Your task to perform on an android device: Open display settings Image 0: 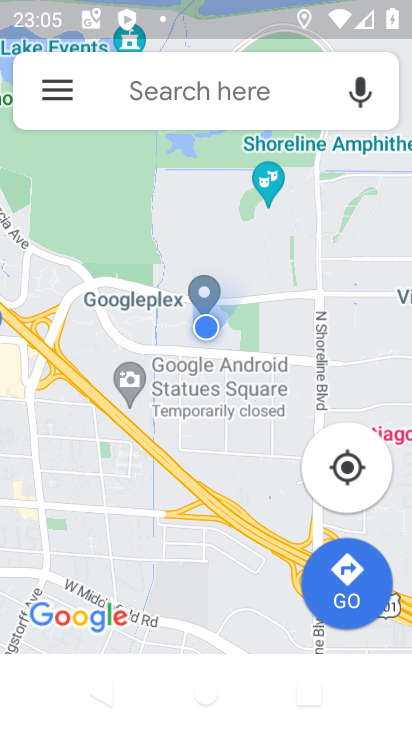
Step 0: press home button
Your task to perform on an android device: Open display settings Image 1: 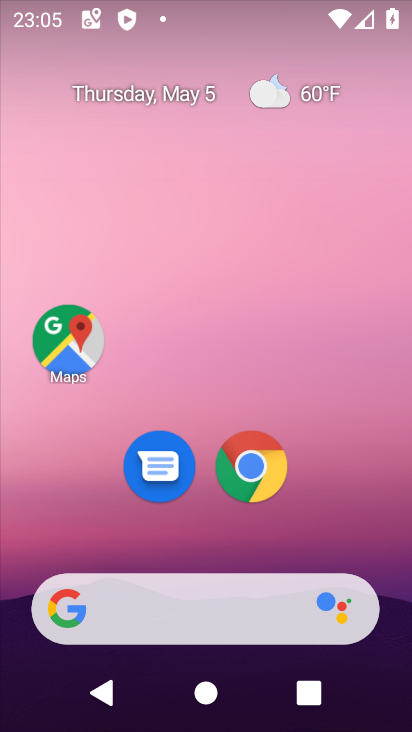
Step 1: drag from (267, 564) to (284, 166)
Your task to perform on an android device: Open display settings Image 2: 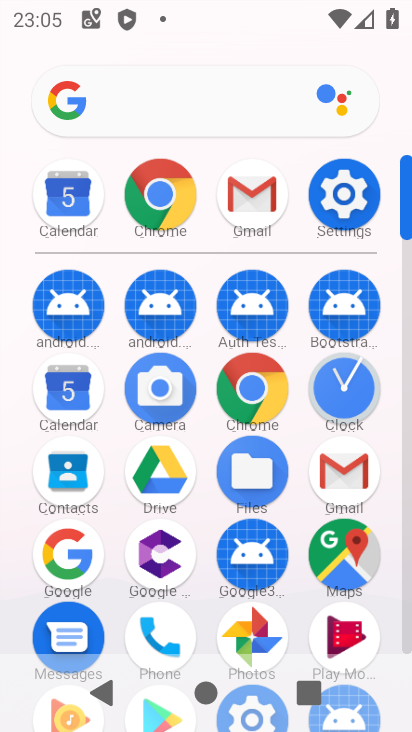
Step 2: click (326, 213)
Your task to perform on an android device: Open display settings Image 3: 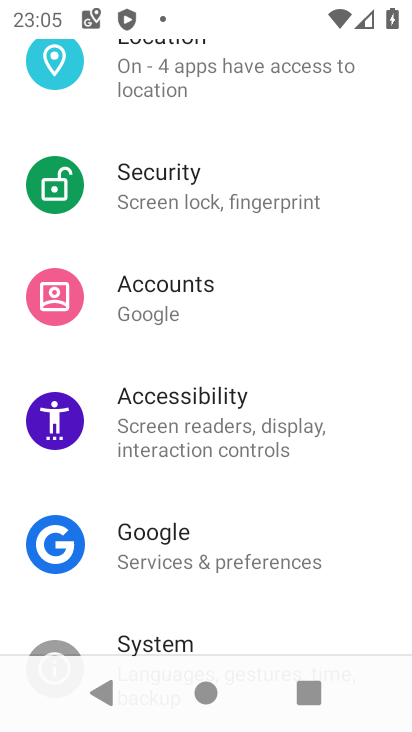
Step 3: drag from (215, 569) to (249, 234)
Your task to perform on an android device: Open display settings Image 4: 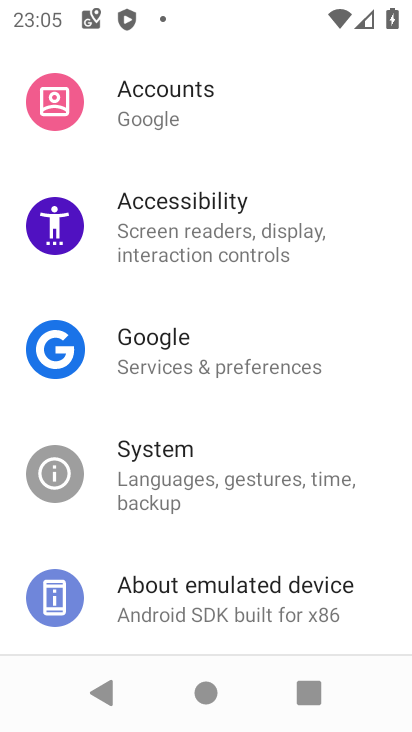
Step 4: drag from (254, 244) to (291, 560)
Your task to perform on an android device: Open display settings Image 5: 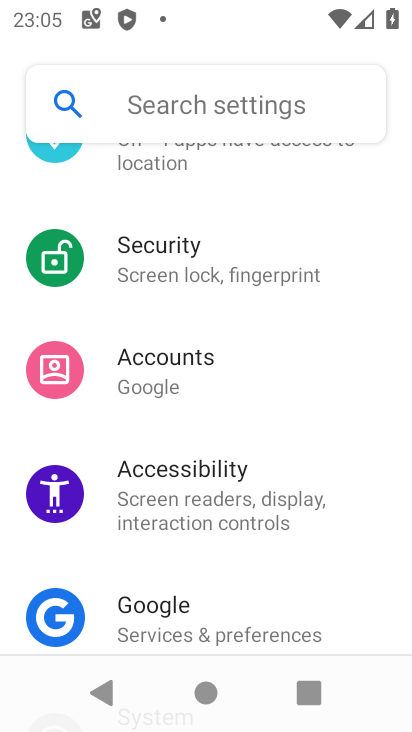
Step 5: drag from (199, 205) to (259, 467)
Your task to perform on an android device: Open display settings Image 6: 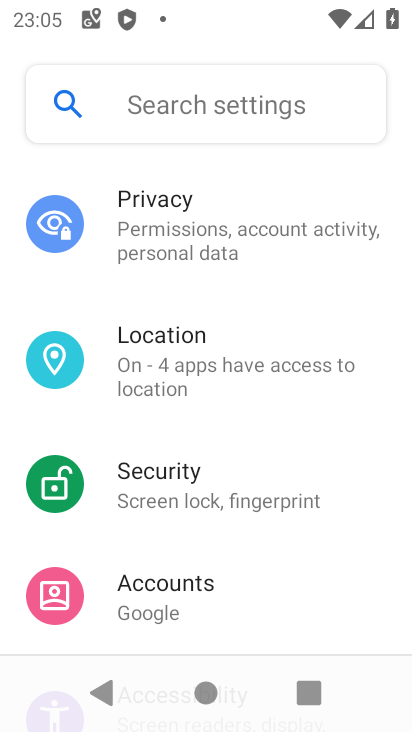
Step 6: drag from (218, 288) to (255, 505)
Your task to perform on an android device: Open display settings Image 7: 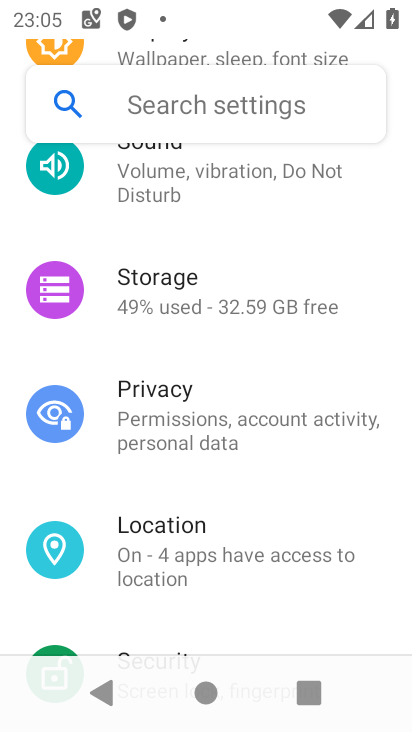
Step 7: drag from (281, 348) to (313, 460)
Your task to perform on an android device: Open display settings Image 8: 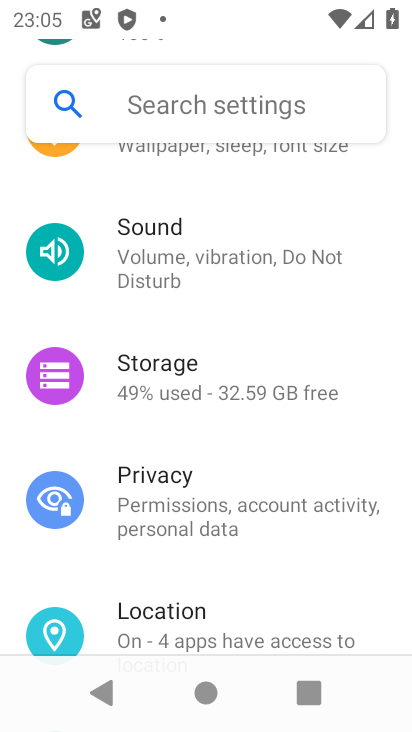
Step 8: drag from (282, 384) to (332, 567)
Your task to perform on an android device: Open display settings Image 9: 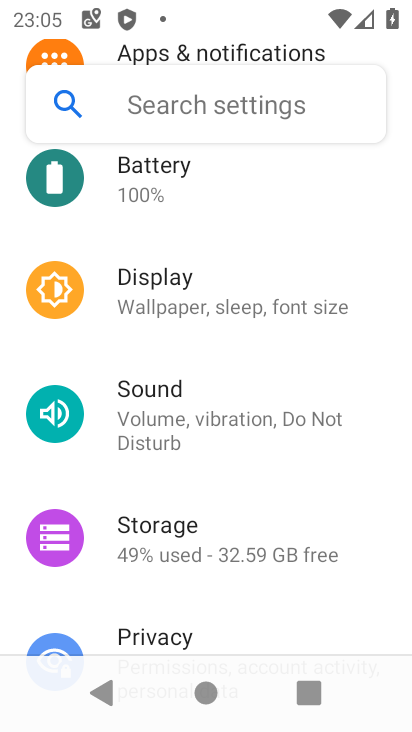
Step 9: click (230, 298)
Your task to perform on an android device: Open display settings Image 10: 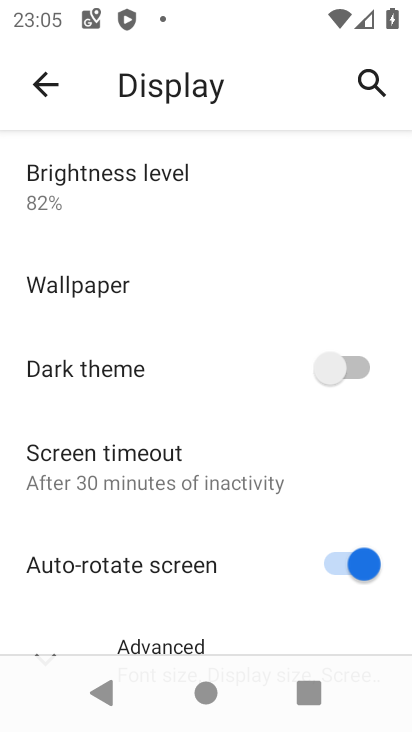
Step 10: task complete